Your task to perform on an android device: Go to Yahoo.com Image 0: 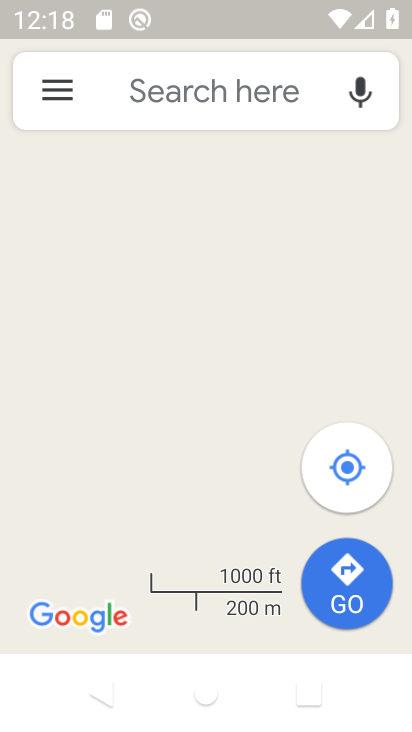
Step 0: click (209, 61)
Your task to perform on an android device: Go to Yahoo.com Image 1: 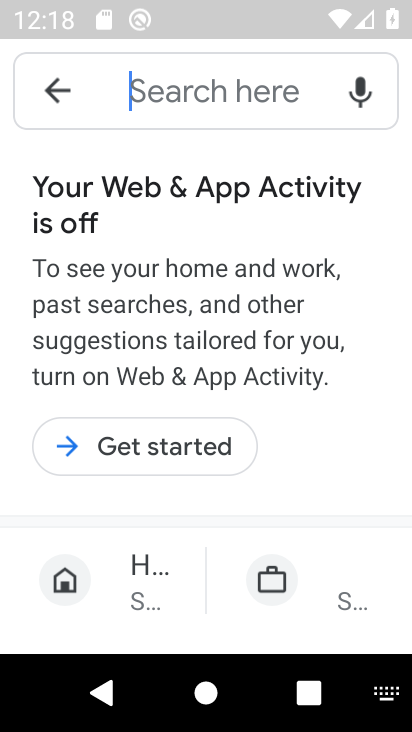
Step 1: click (197, 103)
Your task to perform on an android device: Go to Yahoo.com Image 2: 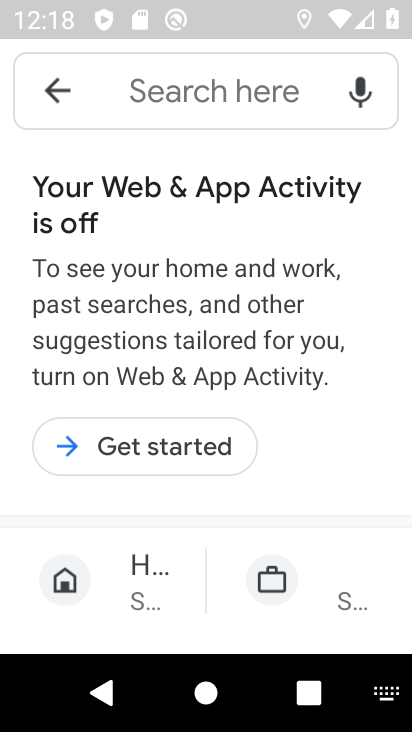
Step 2: press home button
Your task to perform on an android device: Go to Yahoo.com Image 3: 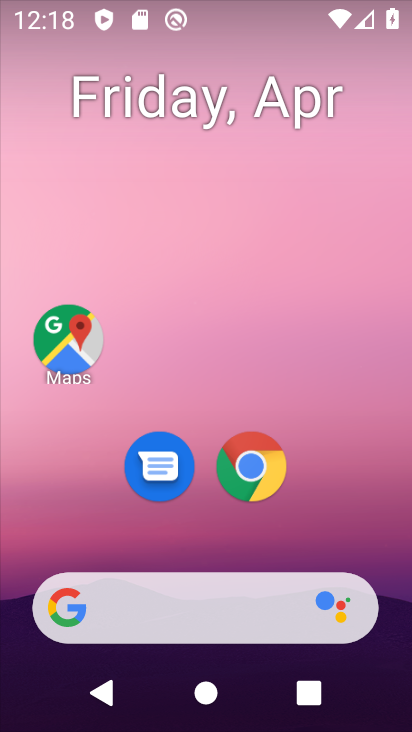
Step 3: drag from (361, 328) to (364, 108)
Your task to perform on an android device: Go to Yahoo.com Image 4: 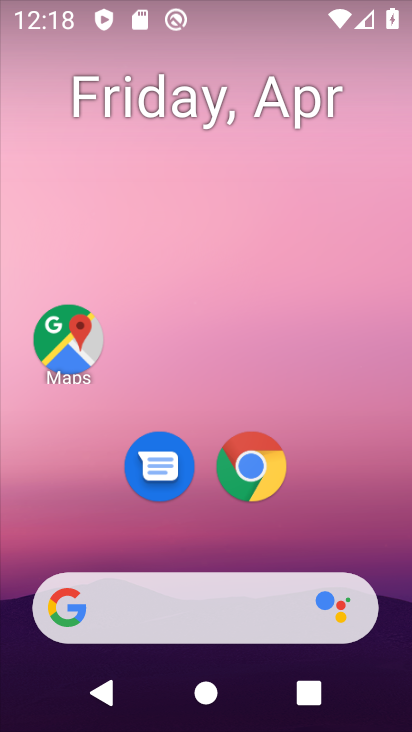
Step 4: drag from (354, 514) to (355, 67)
Your task to perform on an android device: Go to Yahoo.com Image 5: 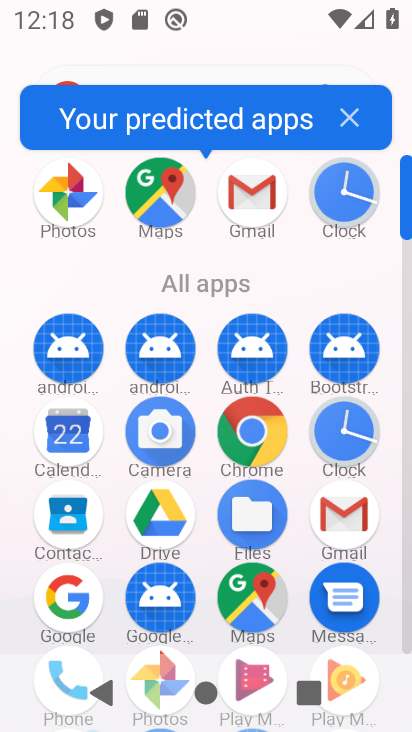
Step 5: click (261, 438)
Your task to perform on an android device: Go to Yahoo.com Image 6: 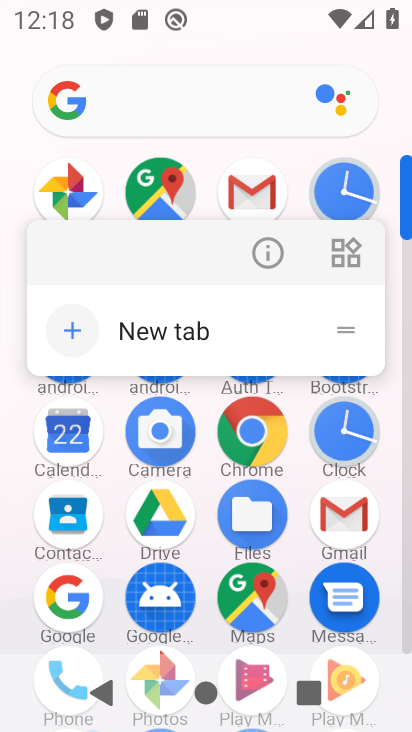
Step 6: click (261, 438)
Your task to perform on an android device: Go to Yahoo.com Image 7: 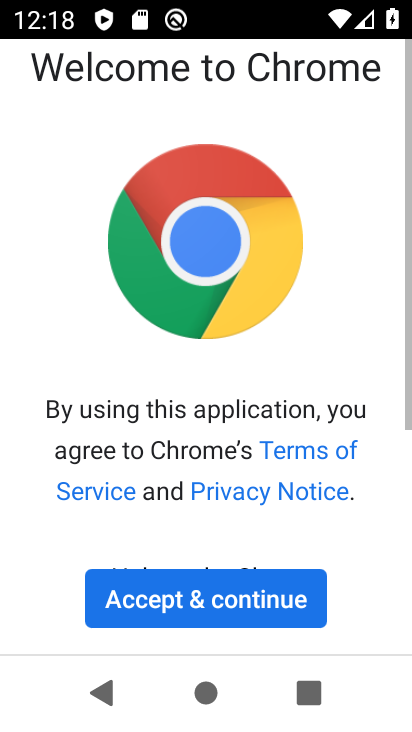
Step 7: click (299, 598)
Your task to perform on an android device: Go to Yahoo.com Image 8: 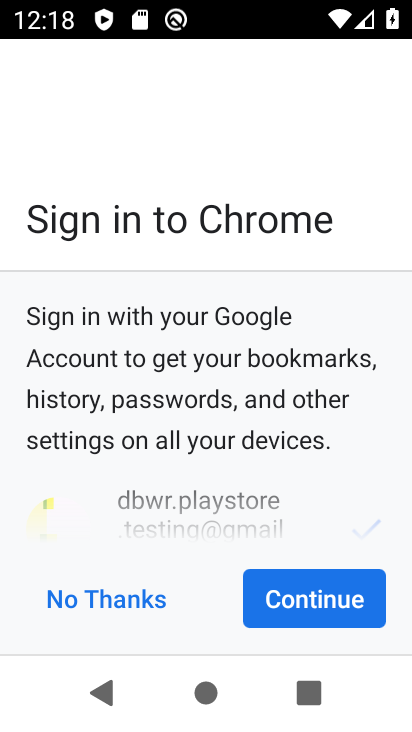
Step 8: click (365, 608)
Your task to perform on an android device: Go to Yahoo.com Image 9: 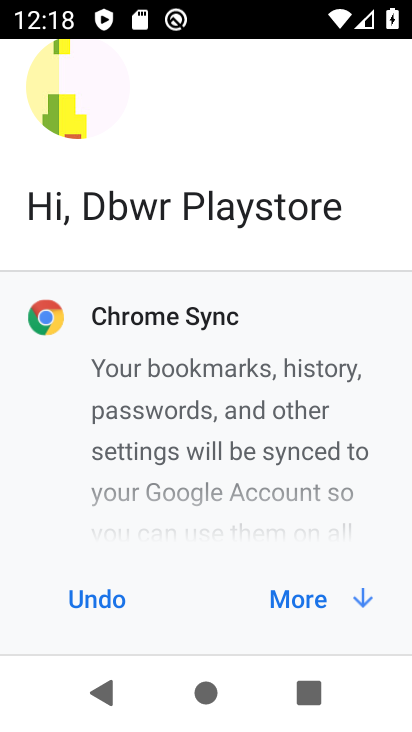
Step 9: click (365, 607)
Your task to perform on an android device: Go to Yahoo.com Image 10: 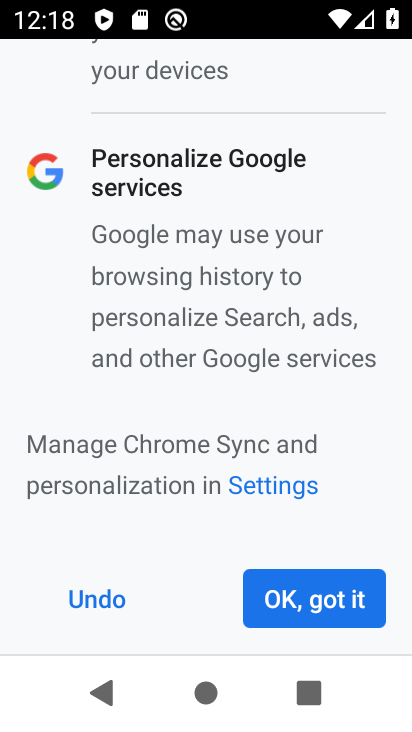
Step 10: click (365, 607)
Your task to perform on an android device: Go to Yahoo.com Image 11: 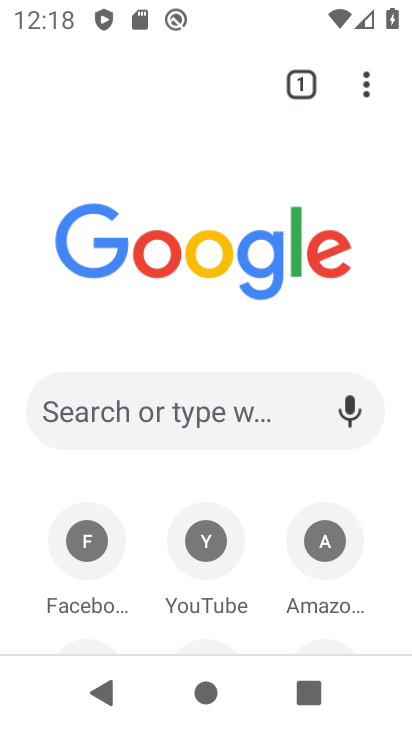
Step 11: click (216, 415)
Your task to perform on an android device: Go to Yahoo.com Image 12: 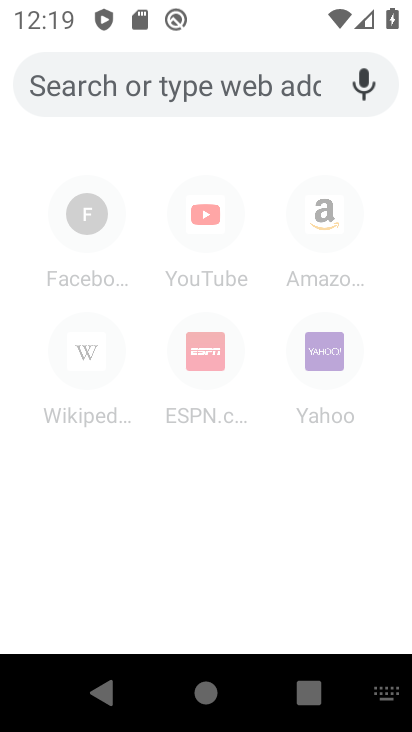
Step 12: type "yahoo.com"
Your task to perform on an android device: Go to Yahoo.com Image 13: 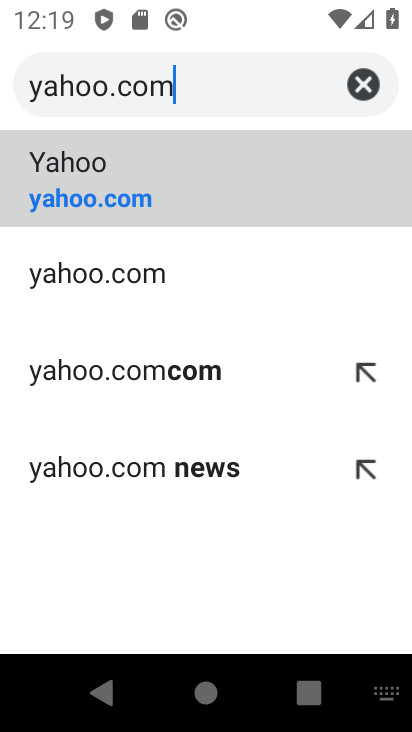
Step 13: click (14, 183)
Your task to perform on an android device: Go to Yahoo.com Image 14: 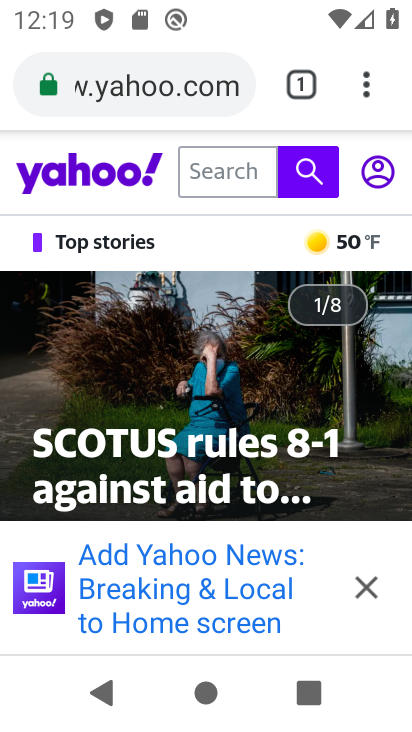
Step 14: task complete